Your task to perform on an android device: Open location settings Image 0: 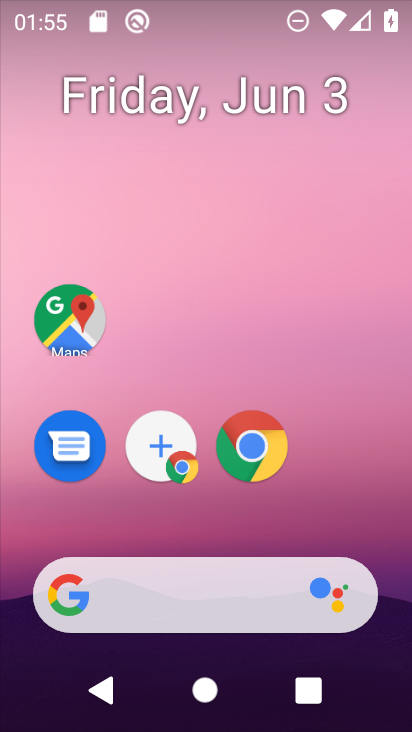
Step 0: drag from (259, 435) to (293, 4)
Your task to perform on an android device: Open location settings Image 1: 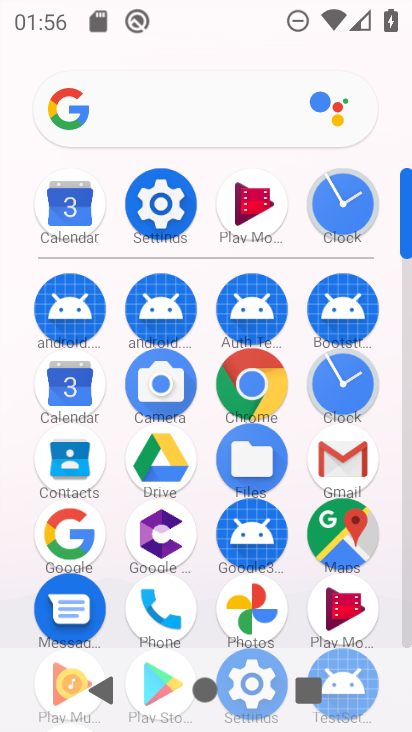
Step 1: click (147, 204)
Your task to perform on an android device: Open location settings Image 2: 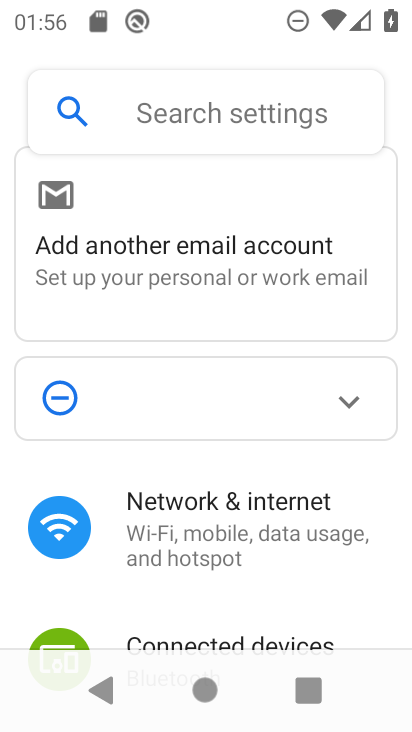
Step 2: drag from (239, 586) to (161, 24)
Your task to perform on an android device: Open location settings Image 3: 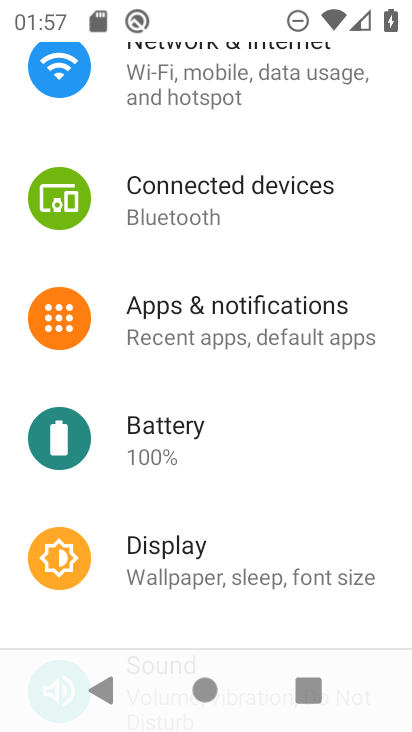
Step 3: drag from (261, 531) to (174, 5)
Your task to perform on an android device: Open location settings Image 4: 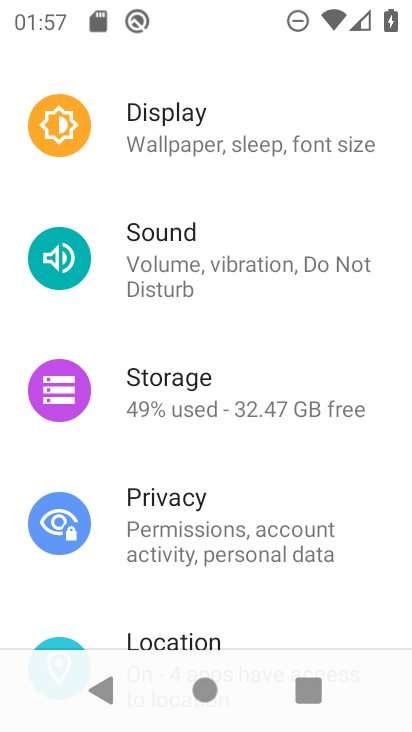
Step 4: click (211, 637)
Your task to perform on an android device: Open location settings Image 5: 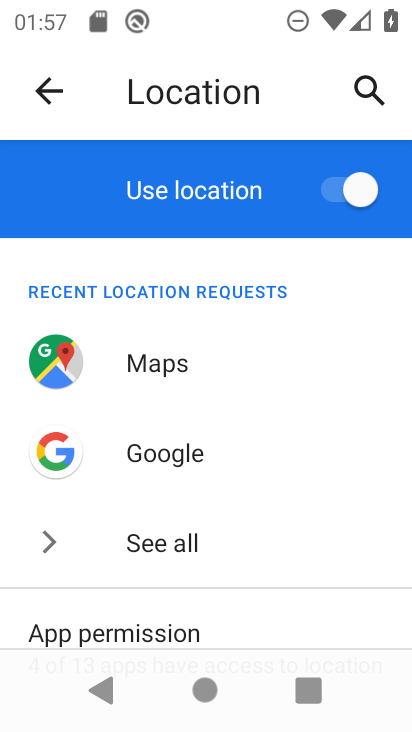
Step 5: task complete